Your task to perform on an android device: Show me popular videos on Youtube Image 0: 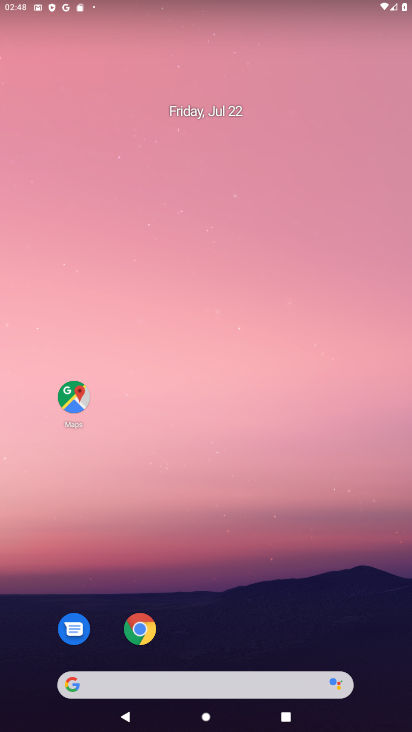
Step 0: drag from (305, 242) to (259, 50)
Your task to perform on an android device: Show me popular videos on Youtube Image 1: 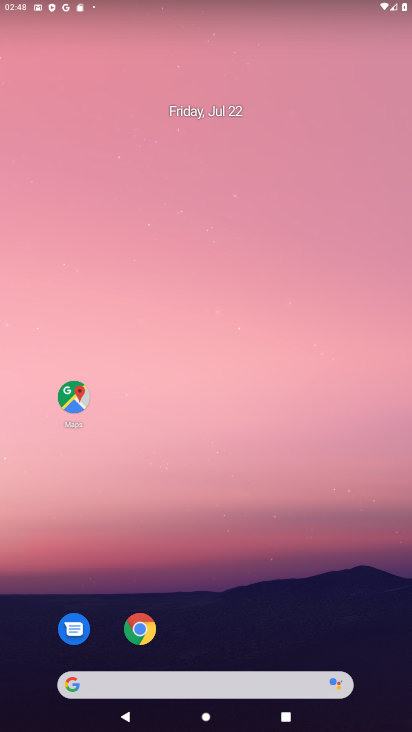
Step 1: drag from (278, 641) to (241, 57)
Your task to perform on an android device: Show me popular videos on Youtube Image 2: 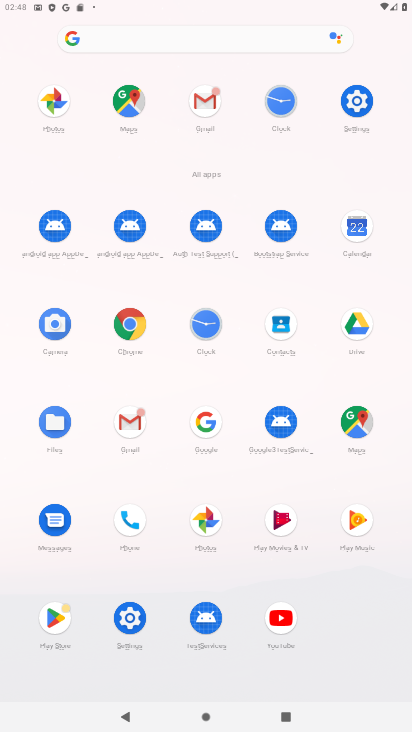
Step 2: click (288, 618)
Your task to perform on an android device: Show me popular videos on Youtube Image 3: 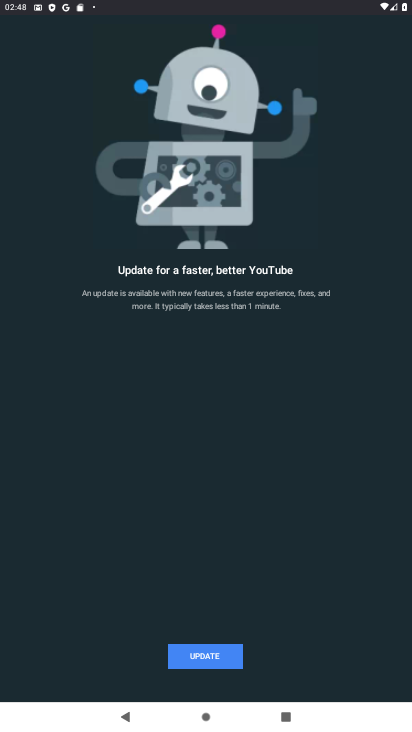
Step 3: click (228, 657)
Your task to perform on an android device: Show me popular videos on Youtube Image 4: 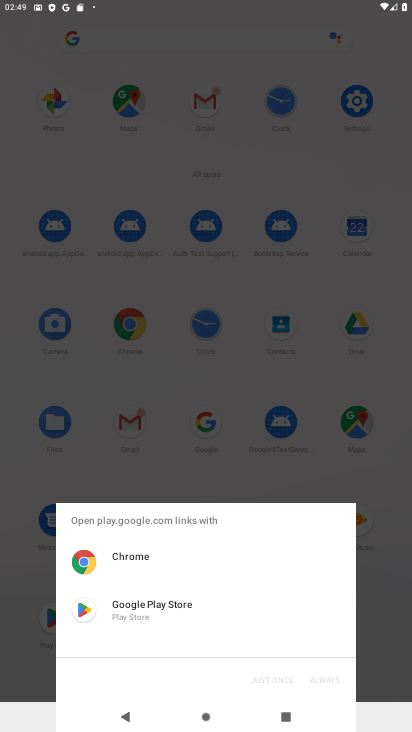
Step 4: click (217, 634)
Your task to perform on an android device: Show me popular videos on Youtube Image 5: 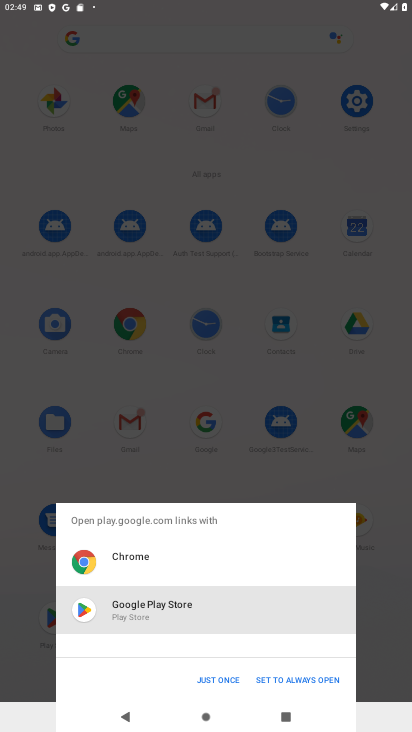
Step 5: click (231, 678)
Your task to perform on an android device: Show me popular videos on Youtube Image 6: 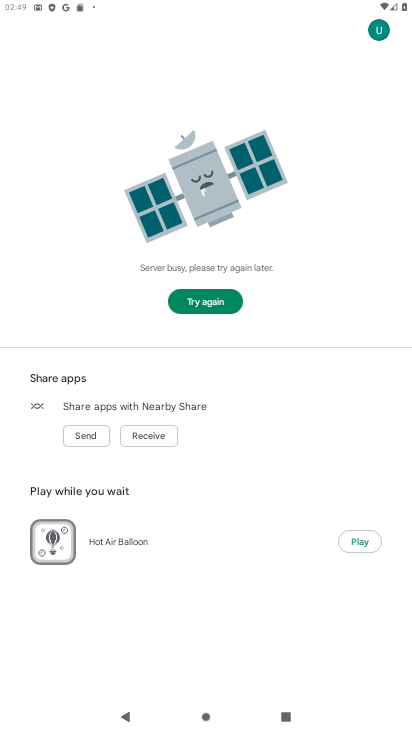
Step 6: task complete